Your task to perform on an android device: visit the assistant section in the google photos Image 0: 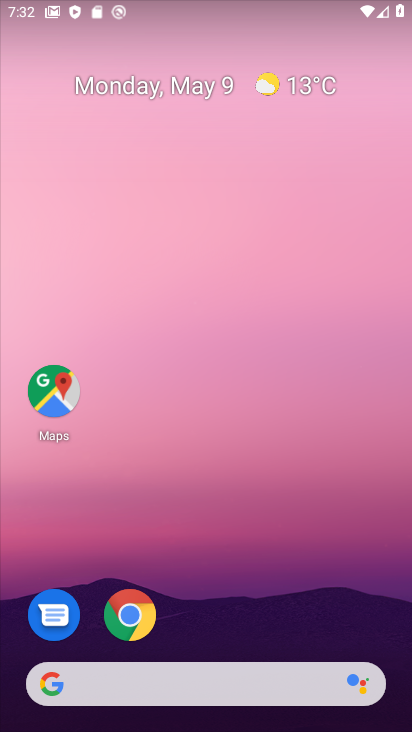
Step 0: drag from (230, 629) to (224, 186)
Your task to perform on an android device: visit the assistant section in the google photos Image 1: 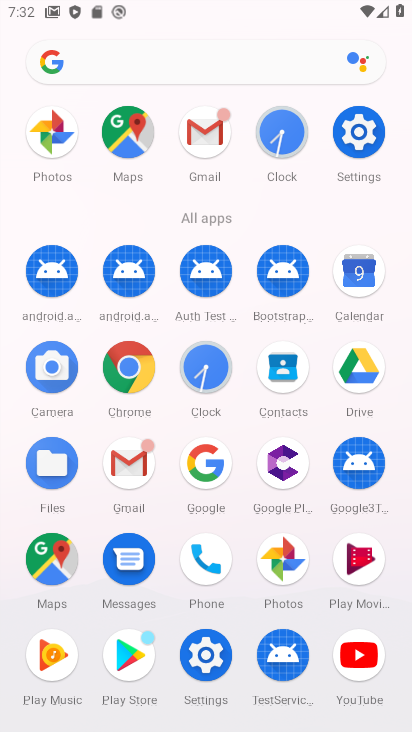
Step 1: click (284, 556)
Your task to perform on an android device: visit the assistant section in the google photos Image 2: 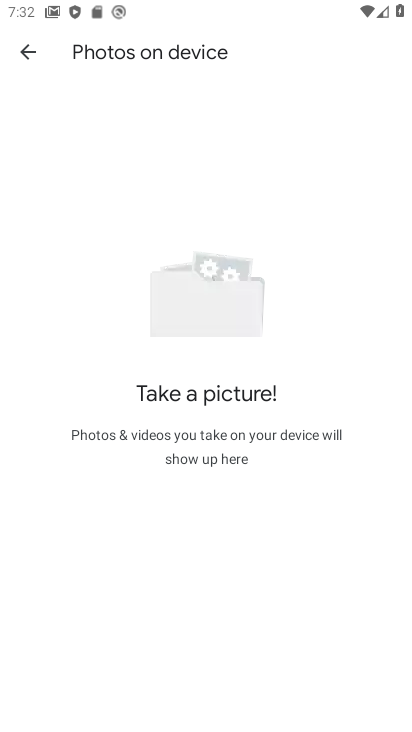
Step 2: click (38, 52)
Your task to perform on an android device: visit the assistant section in the google photos Image 3: 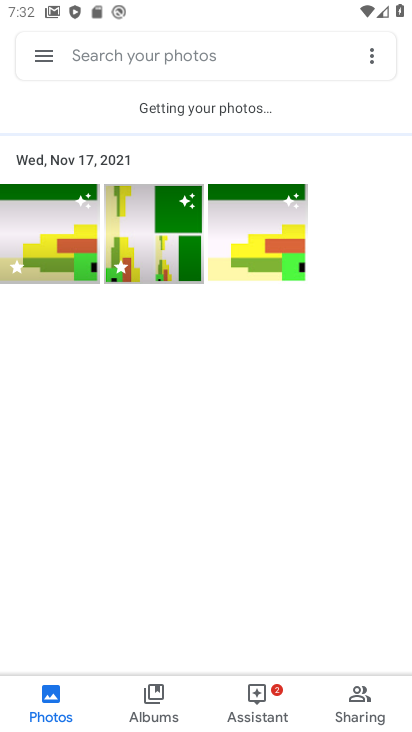
Step 3: click (257, 703)
Your task to perform on an android device: visit the assistant section in the google photos Image 4: 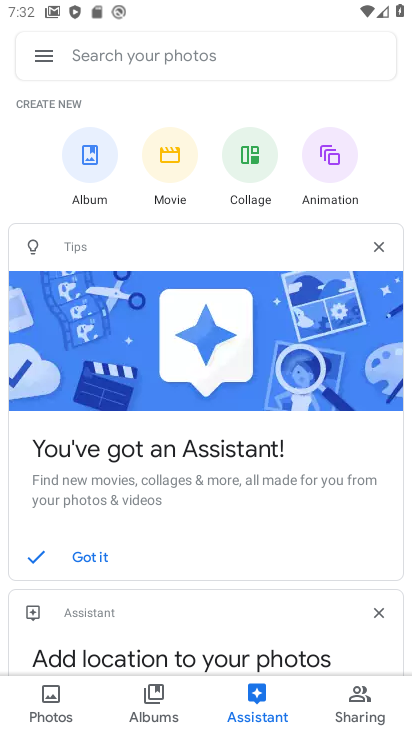
Step 4: task complete